Your task to perform on an android device: Go to accessibility settings Image 0: 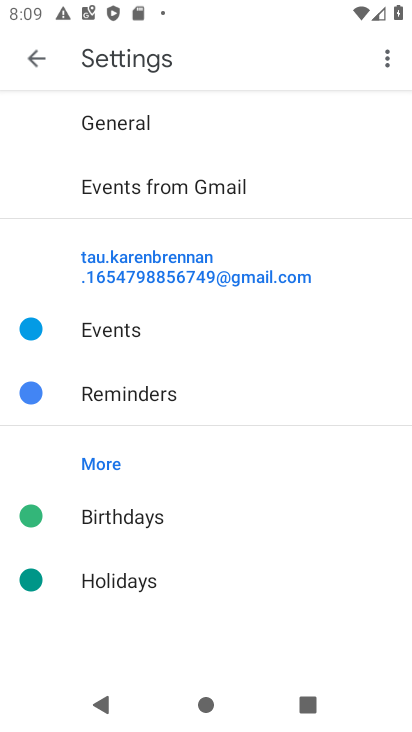
Step 0: press home button
Your task to perform on an android device: Go to accessibility settings Image 1: 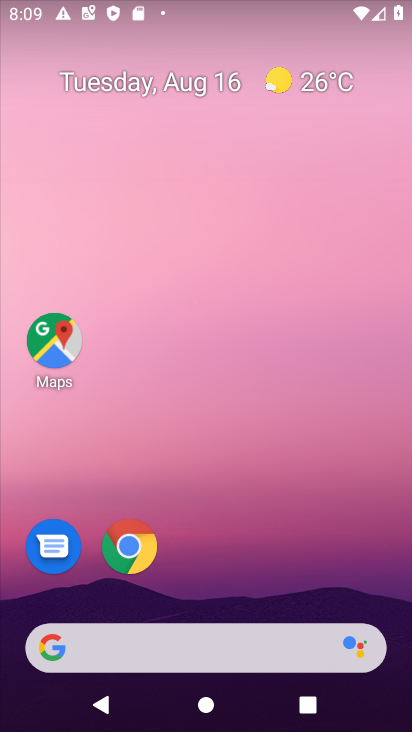
Step 1: drag from (222, 488) to (275, 21)
Your task to perform on an android device: Go to accessibility settings Image 2: 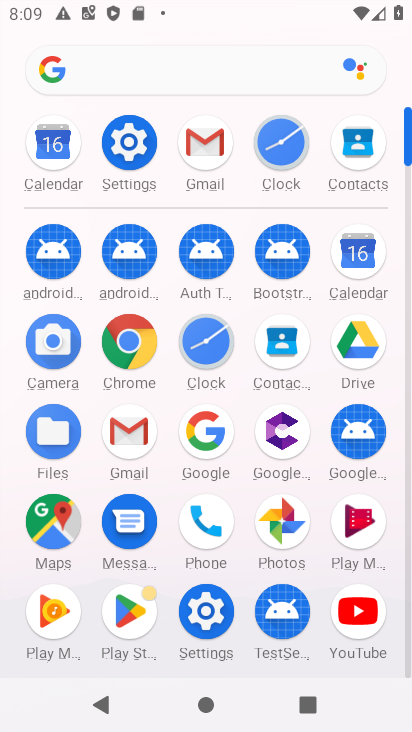
Step 2: click (134, 149)
Your task to perform on an android device: Go to accessibility settings Image 3: 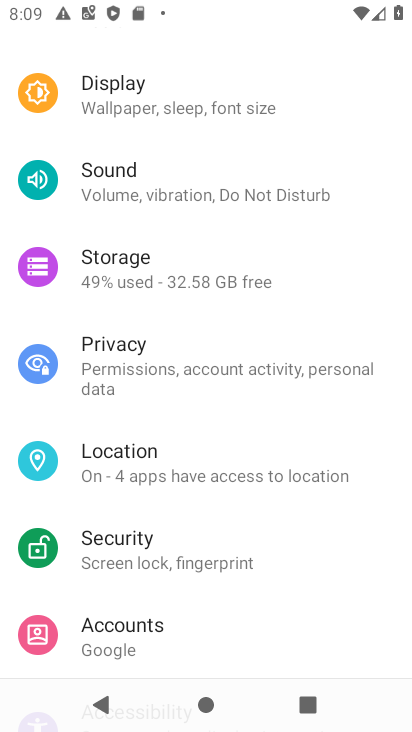
Step 3: drag from (210, 519) to (266, 66)
Your task to perform on an android device: Go to accessibility settings Image 4: 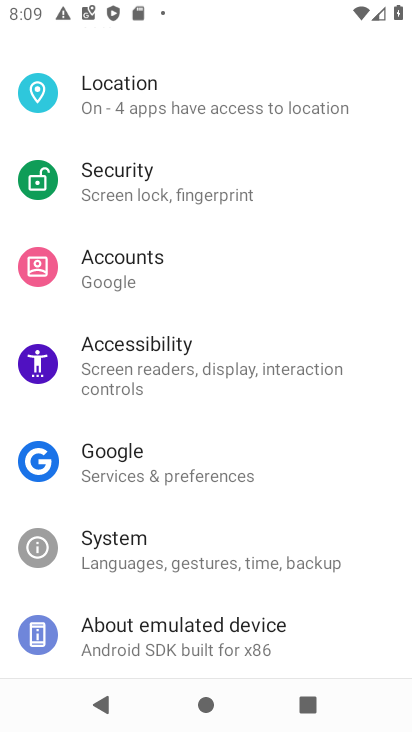
Step 4: click (188, 355)
Your task to perform on an android device: Go to accessibility settings Image 5: 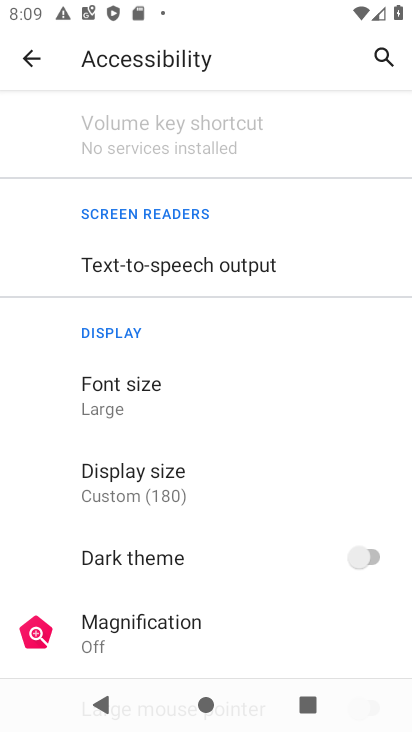
Step 5: task complete